Your task to perform on an android device: turn on notifications settings in the gmail app Image 0: 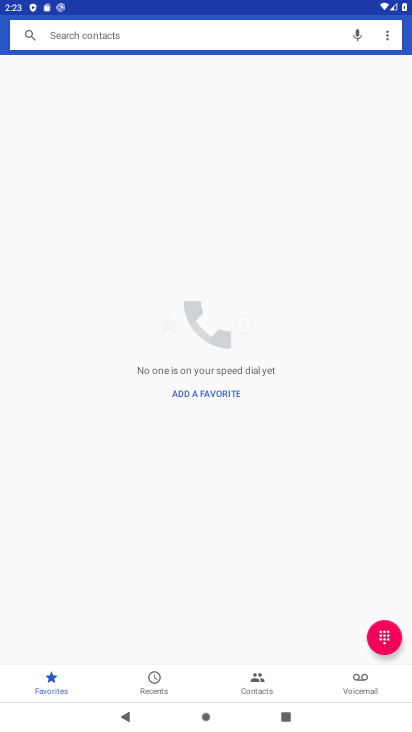
Step 0: press home button
Your task to perform on an android device: turn on notifications settings in the gmail app Image 1: 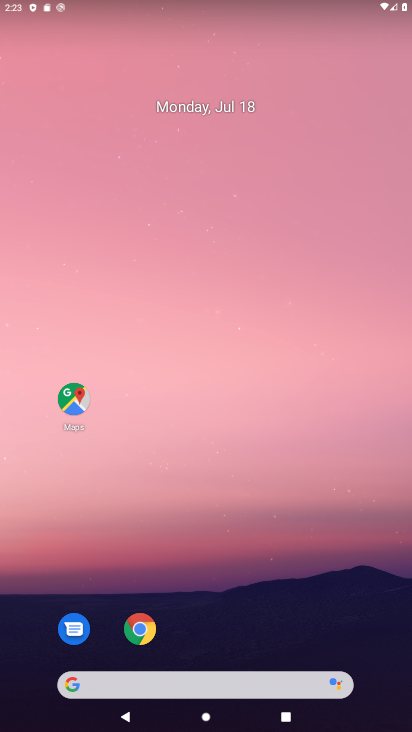
Step 1: drag from (190, 612) to (315, 91)
Your task to perform on an android device: turn on notifications settings in the gmail app Image 2: 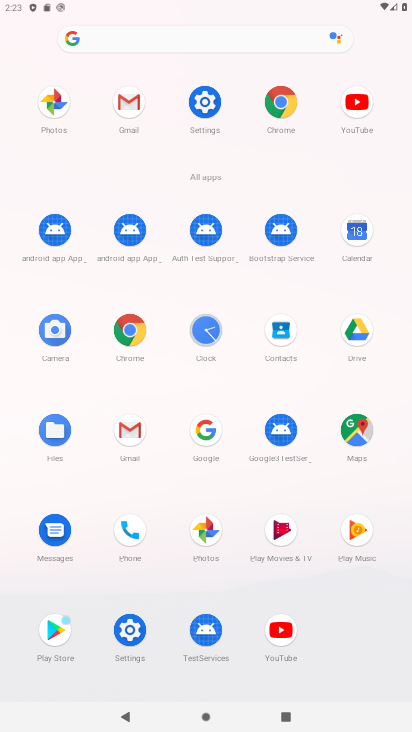
Step 2: click (129, 444)
Your task to perform on an android device: turn on notifications settings in the gmail app Image 3: 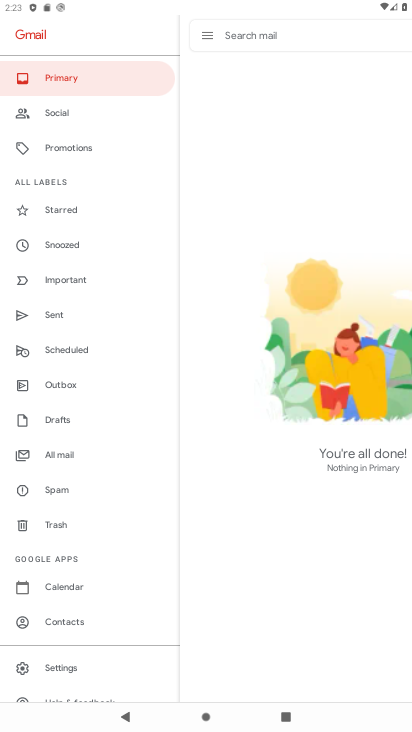
Step 3: click (91, 670)
Your task to perform on an android device: turn on notifications settings in the gmail app Image 4: 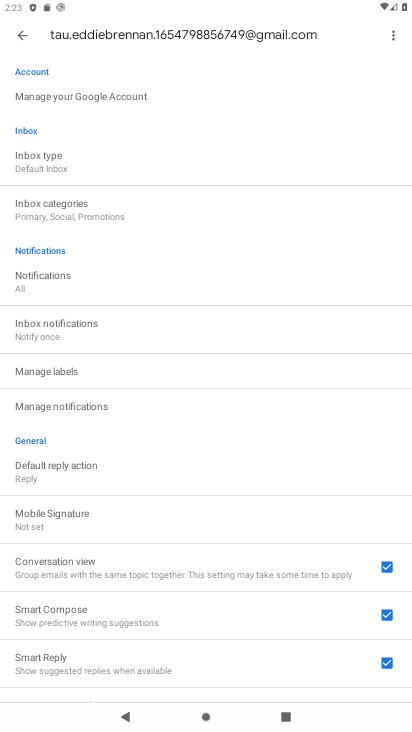
Step 4: click (138, 423)
Your task to perform on an android device: turn on notifications settings in the gmail app Image 5: 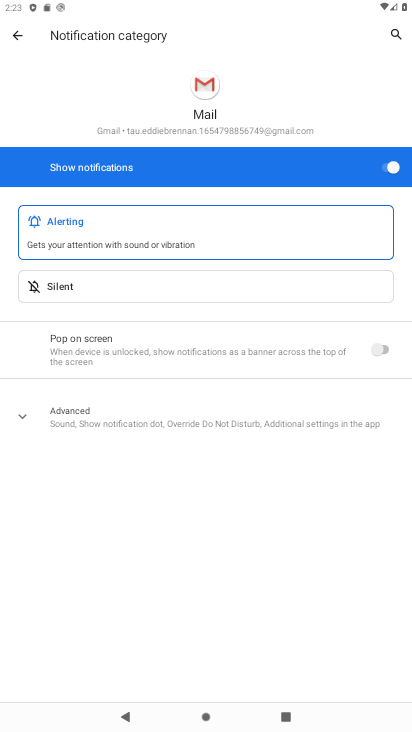
Step 5: task complete